Your task to perform on an android device: Add logitech g903 to the cart on target Image 0: 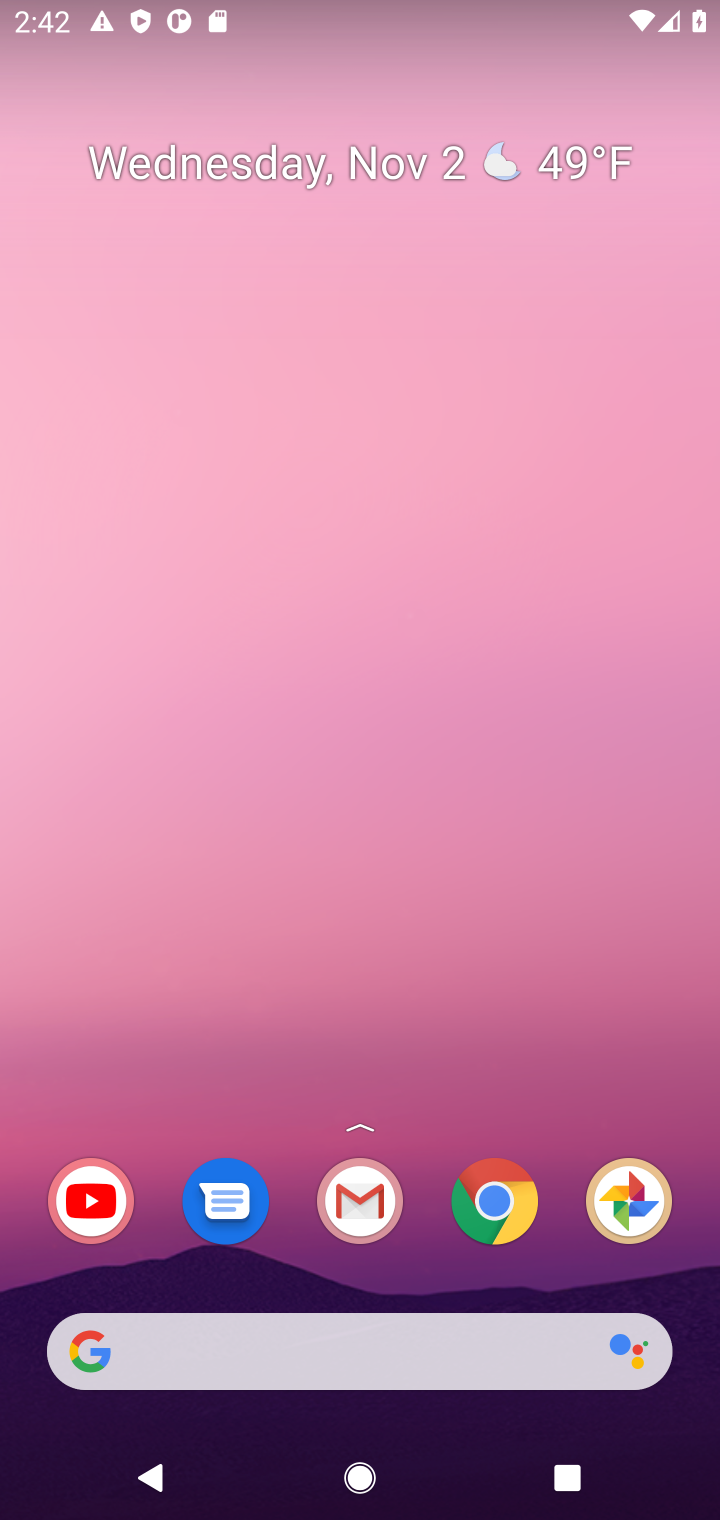
Step 0: click (494, 1199)
Your task to perform on an android device: Add logitech g903 to the cart on target Image 1: 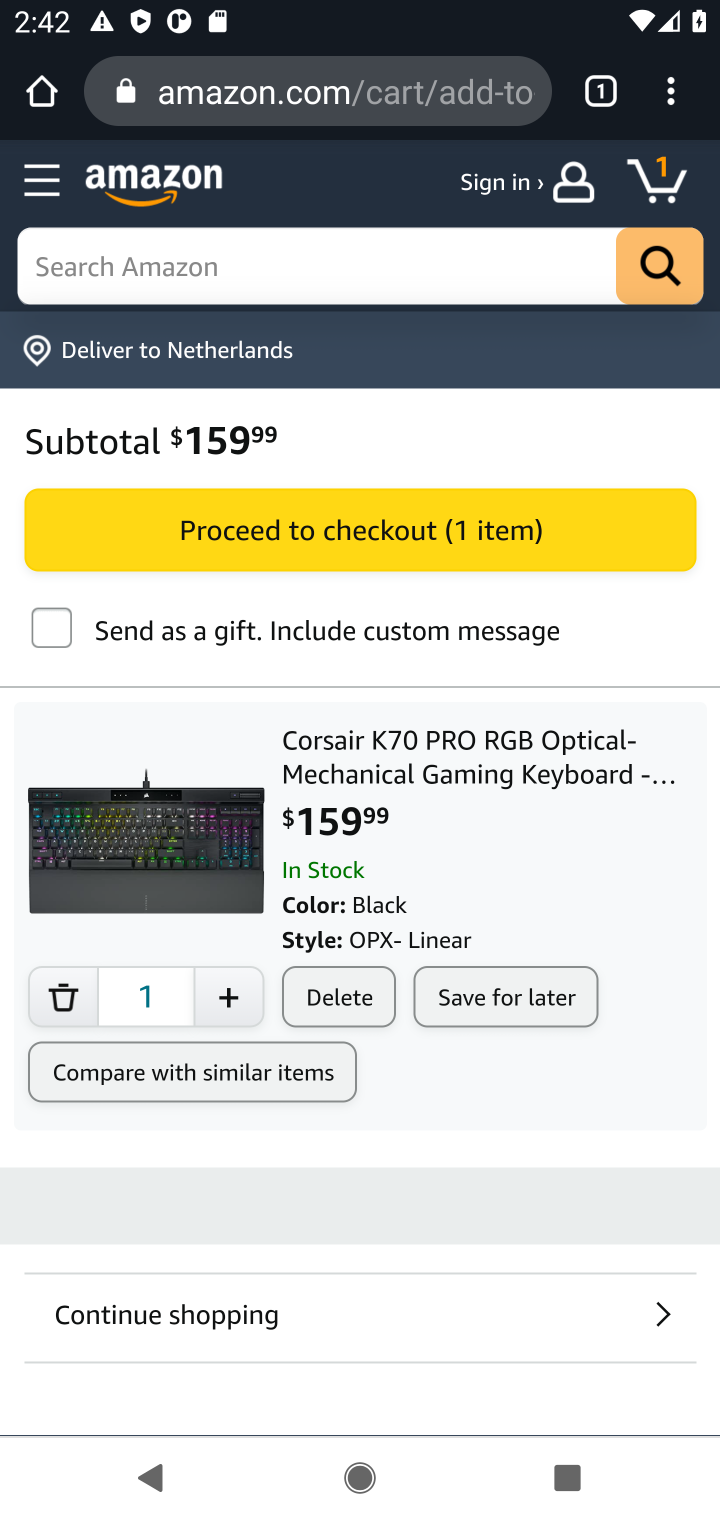
Step 1: click (366, 77)
Your task to perform on an android device: Add logitech g903 to the cart on target Image 2: 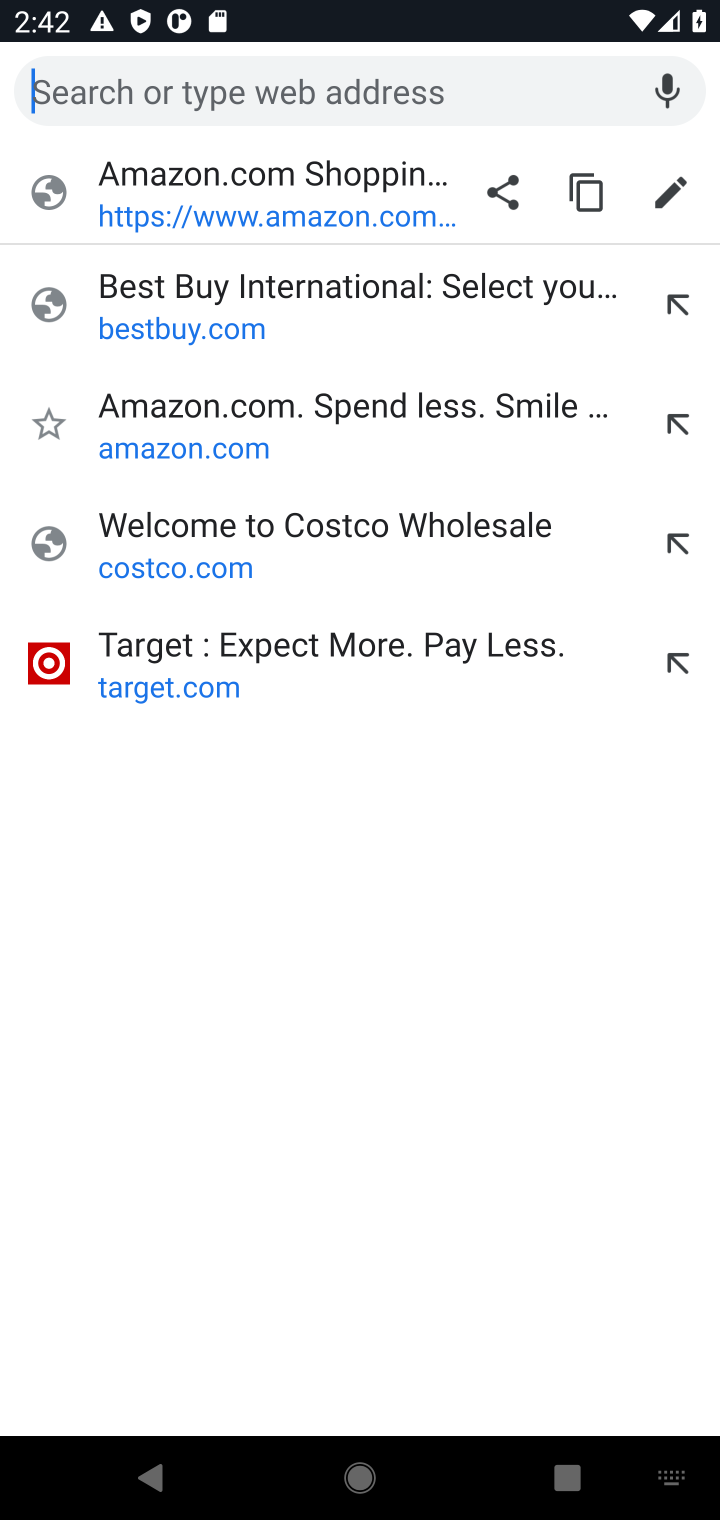
Step 2: click (215, 647)
Your task to perform on an android device: Add logitech g903 to the cart on target Image 3: 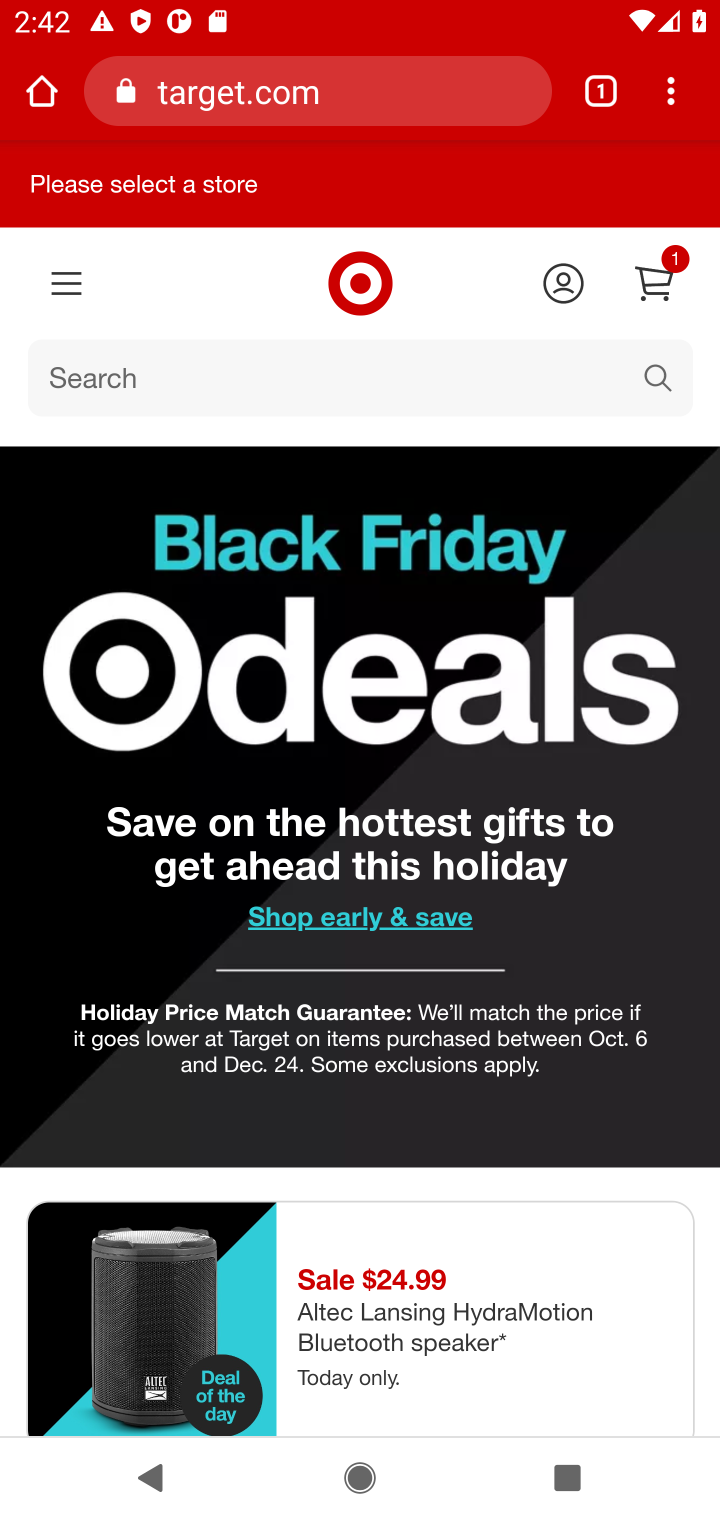
Step 3: click (238, 371)
Your task to perform on an android device: Add logitech g903 to the cart on target Image 4: 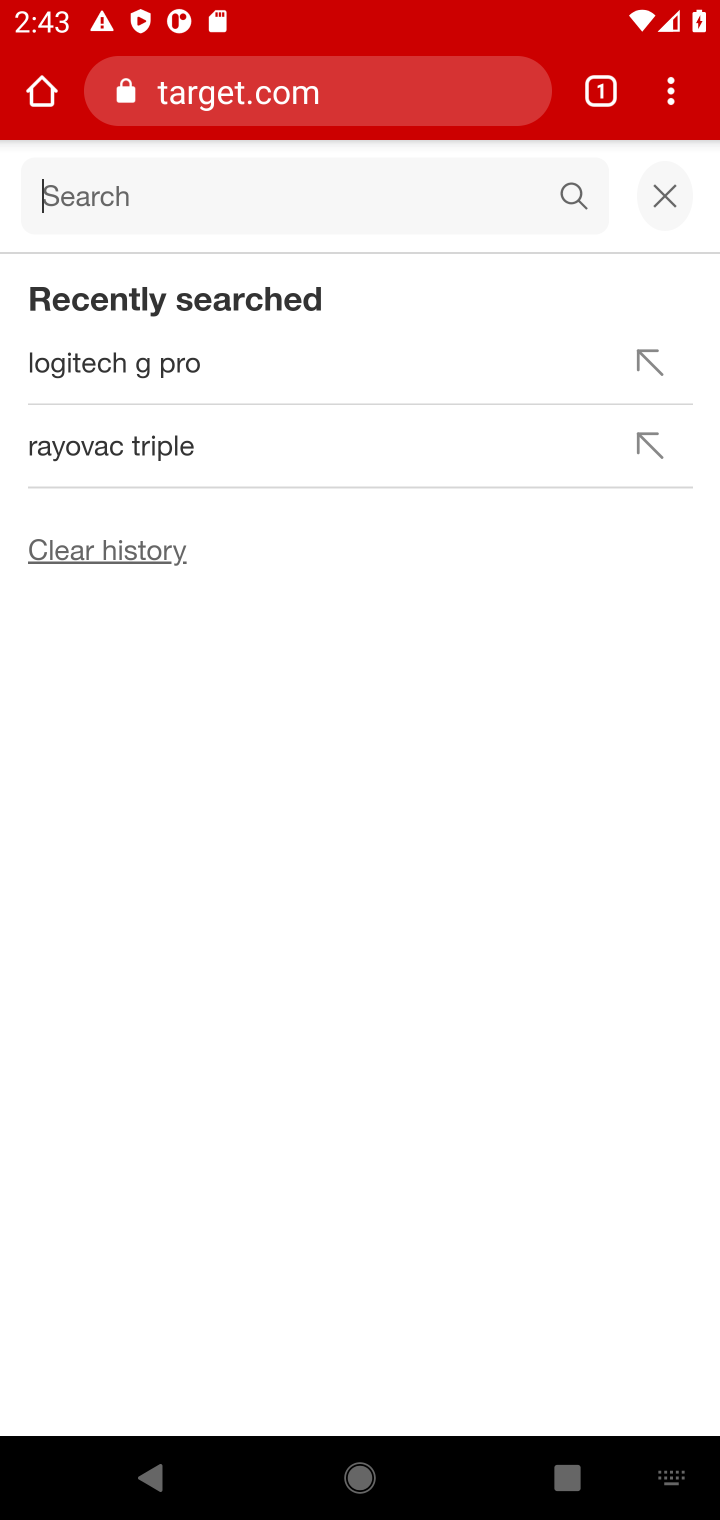
Step 4: type "logitech g903 "
Your task to perform on an android device: Add logitech g903 to the cart on target Image 5: 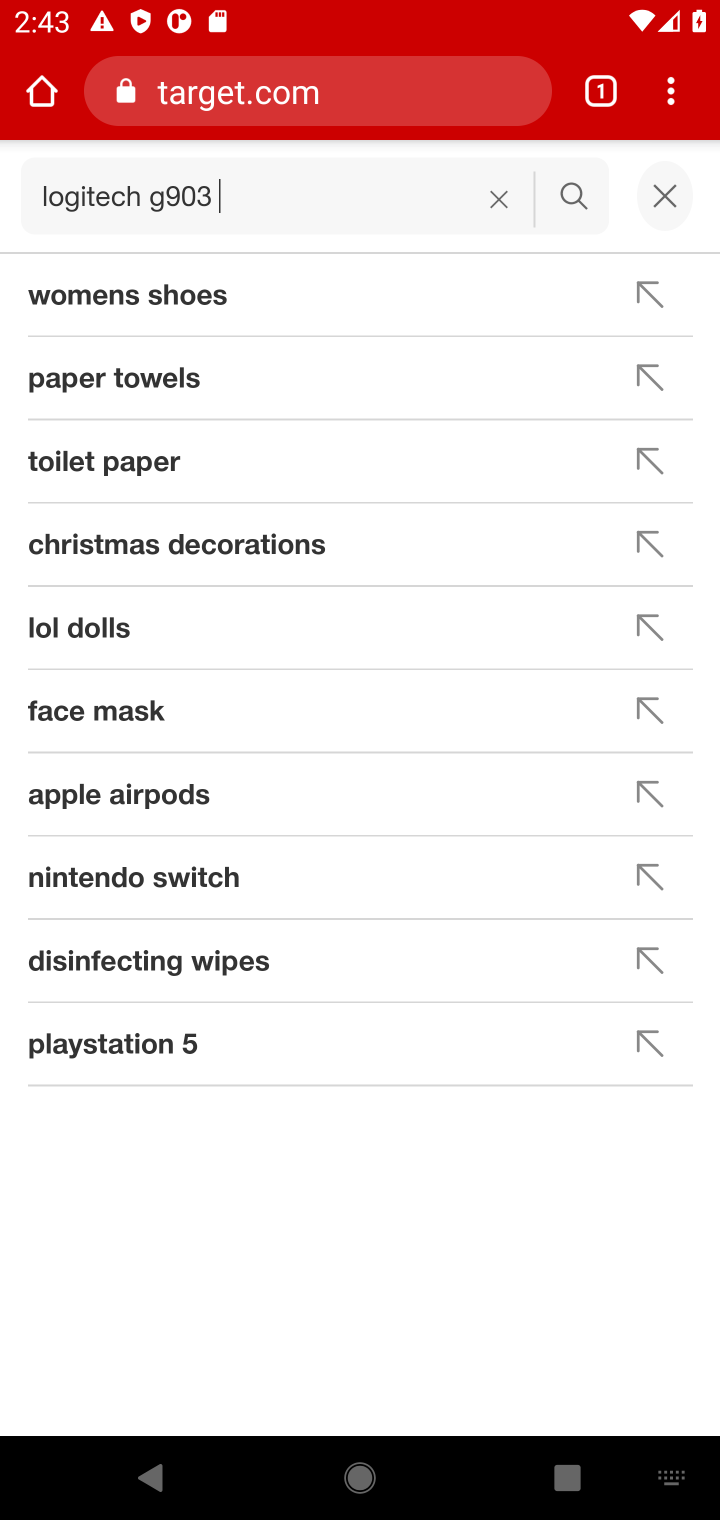
Step 5: press enter
Your task to perform on an android device: Add logitech g903 to the cart on target Image 6: 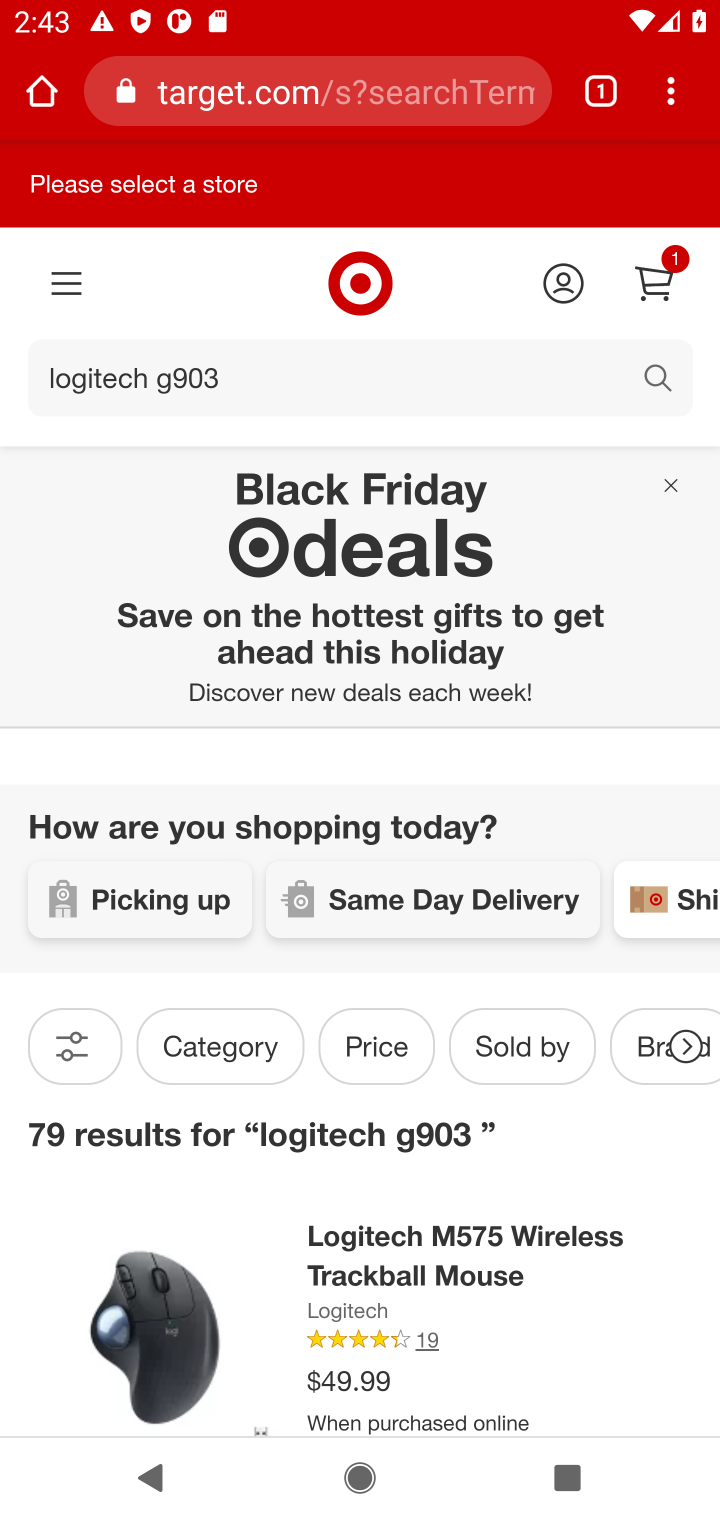
Step 6: task complete